Your task to perform on an android device: toggle priority inbox in the gmail app Image 0: 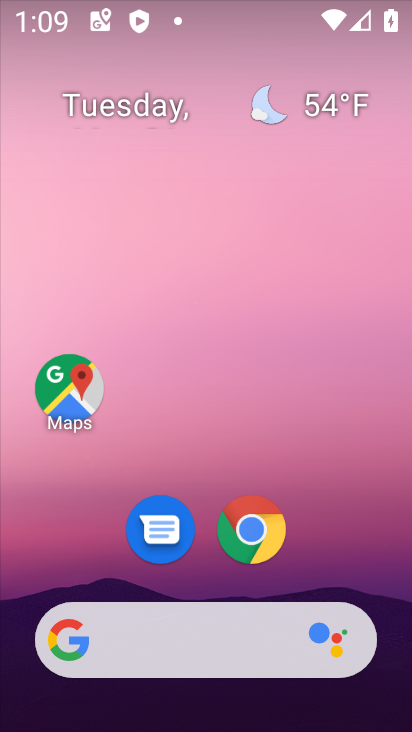
Step 0: drag from (335, 548) to (287, 102)
Your task to perform on an android device: toggle priority inbox in the gmail app Image 1: 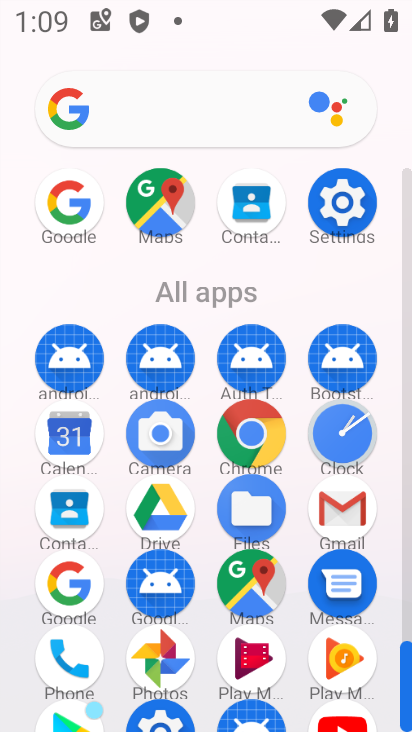
Step 1: click (341, 509)
Your task to perform on an android device: toggle priority inbox in the gmail app Image 2: 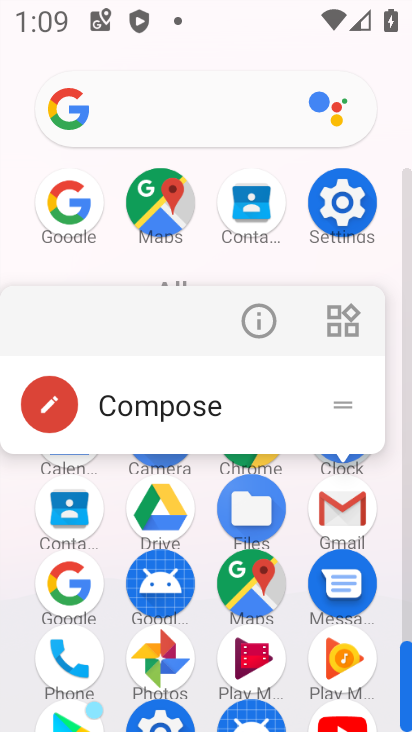
Step 2: click (341, 509)
Your task to perform on an android device: toggle priority inbox in the gmail app Image 3: 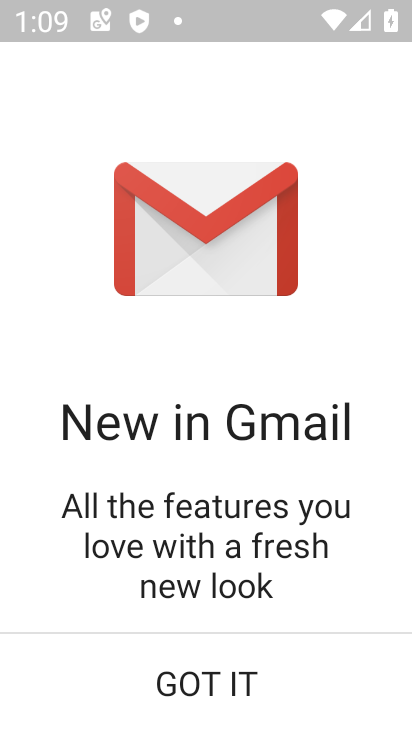
Step 3: click (219, 689)
Your task to perform on an android device: toggle priority inbox in the gmail app Image 4: 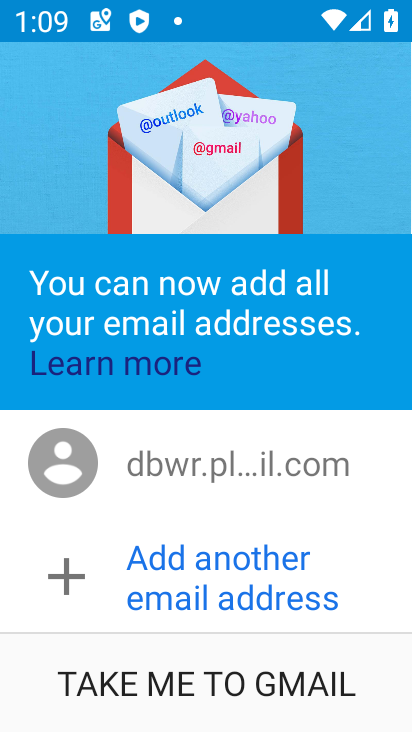
Step 4: click (219, 689)
Your task to perform on an android device: toggle priority inbox in the gmail app Image 5: 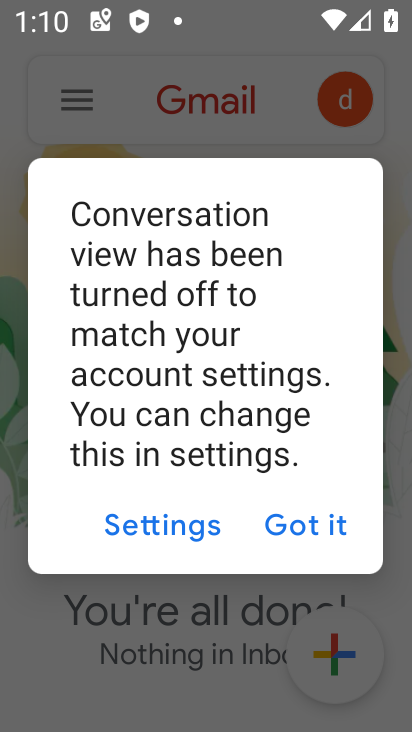
Step 5: click (305, 517)
Your task to perform on an android device: toggle priority inbox in the gmail app Image 6: 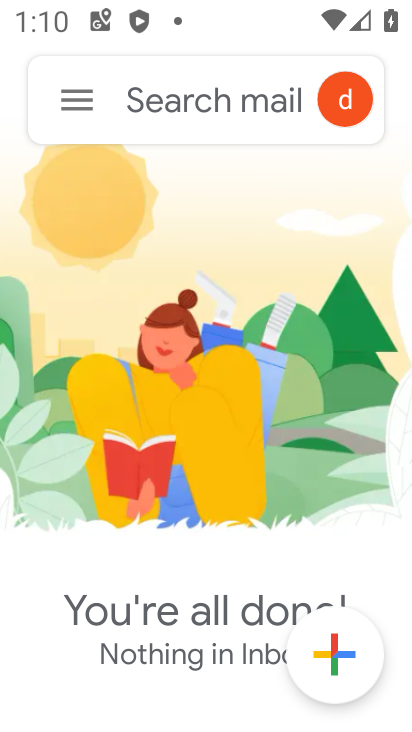
Step 6: click (76, 104)
Your task to perform on an android device: toggle priority inbox in the gmail app Image 7: 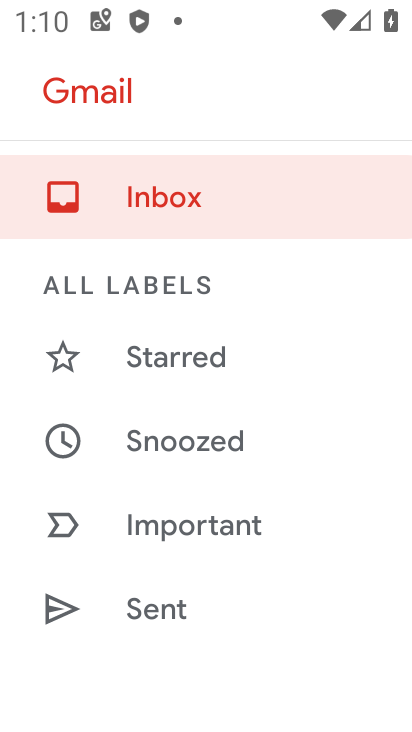
Step 7: drag from (170, 409) to (185, 306)
Your task to perform on an android device: toggle priority inbox in the gmail app Image 8: 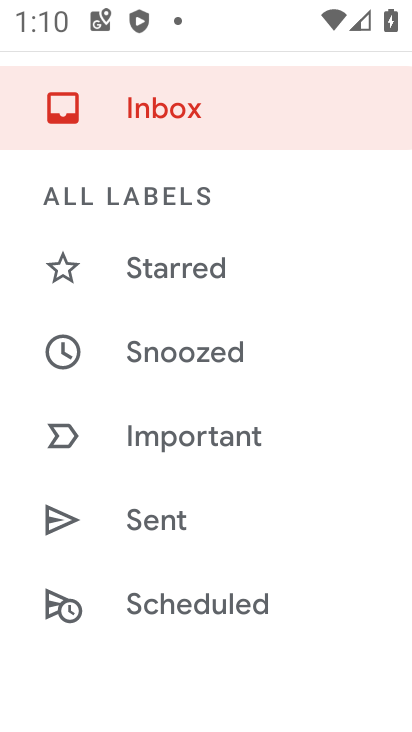
Step 8: drag from (175, 403) to (218, 323)
Your task to perform on an android device: toggle priority inbox in the gmail app Image 9: 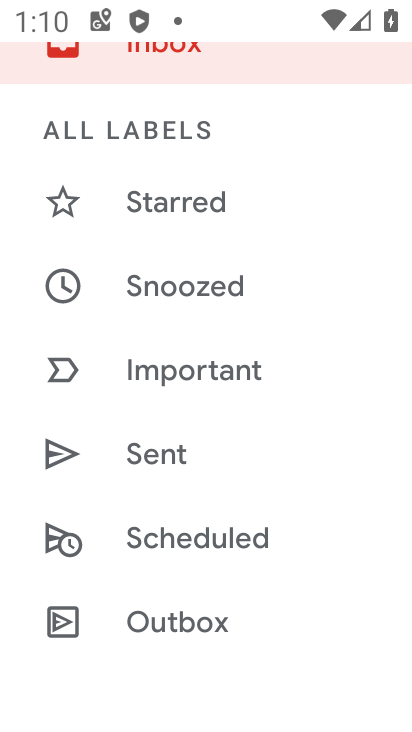
Step 9: drag from (163, 407) to (231, 326)
Your task to perform on an android device: toggle priority inbox in the gmail app Image 10: 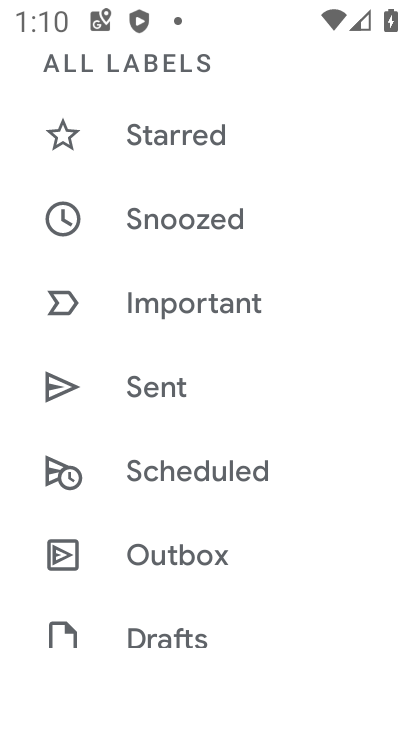
Step 10: drag from (162, 431) to (217, 349)
Your task to perform on an android device: toggle priority inbox in the gmail app Image 11: 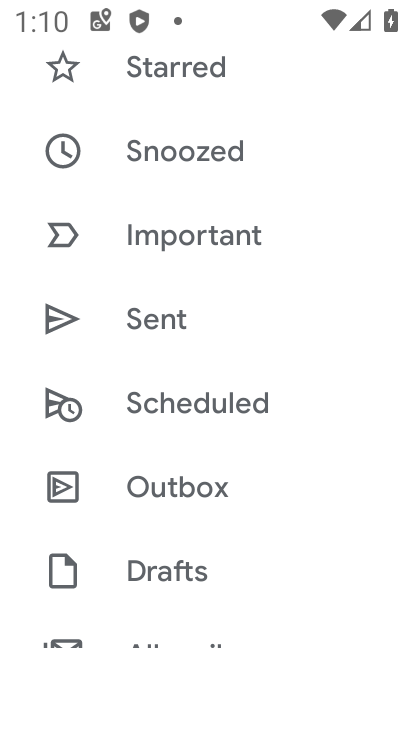
Step 11: drag from (178, 447) to (225, 356)
Your task to perform on an android device: toggle priority inbox in the gmail app Image 12: 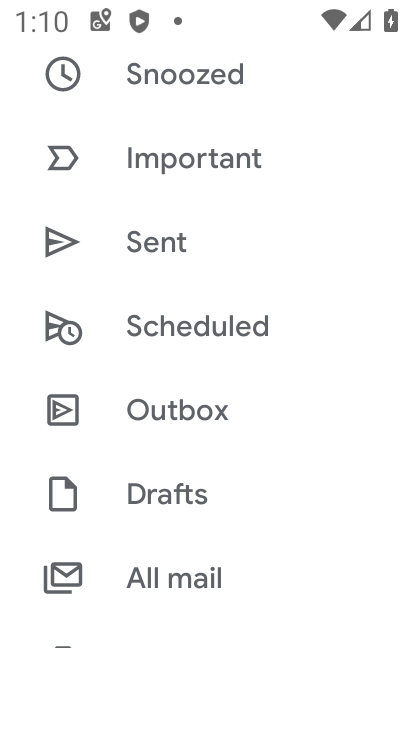
Step 12: drag from (159, 455) to (234, 344)
Your task to perform on an android device: toggle priority inbox in the gmail app Image 13: 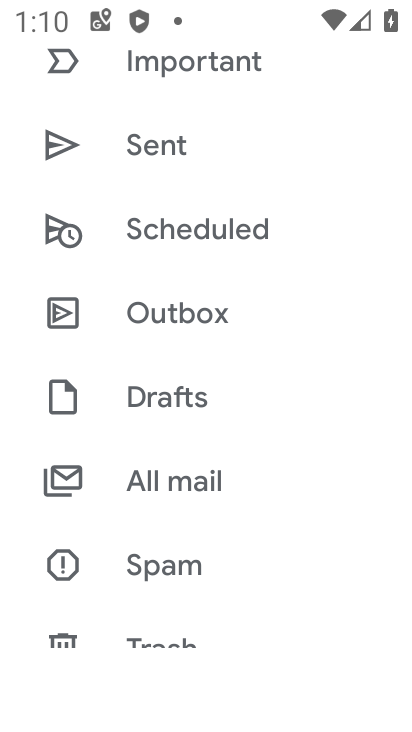
Step 13: drag from (167, 440) to (213, 373)
Your task to perform on an android device: toggle priority inbox in the gmail app Image 14: 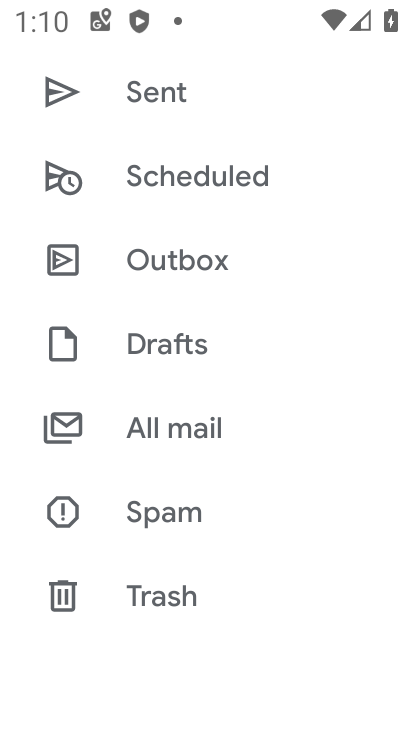
Step 14: drag from (156, 472) to (228, 375)
Your task to perform on an android device: toggle priority inbox in the gmail app Image 15: 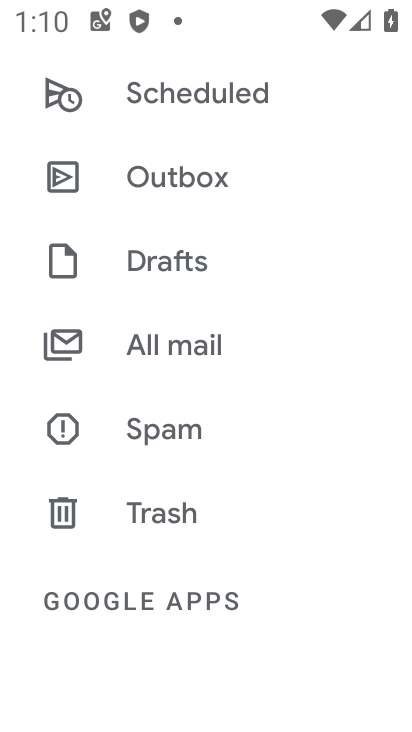
Step 15: drag from (157, 473) to (224, 377)
Your task to perform on an android device: toggle priority inbox in the gmail app Image 16: 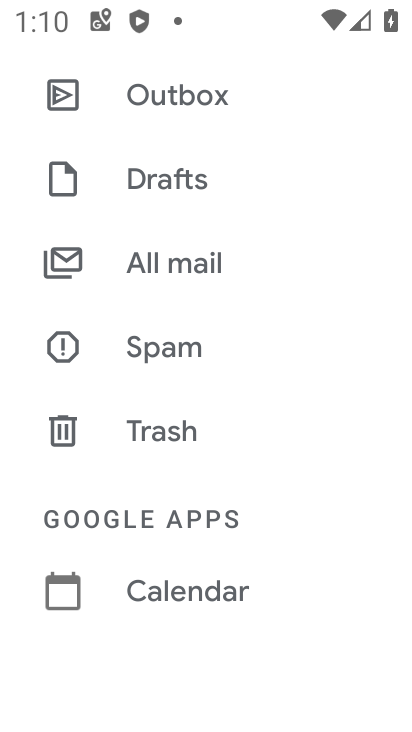
Step 16: drag from (151, 480) to (208, 388)
Your task to perform on an android device: toggle priority inbox in the gmail app Image 17: 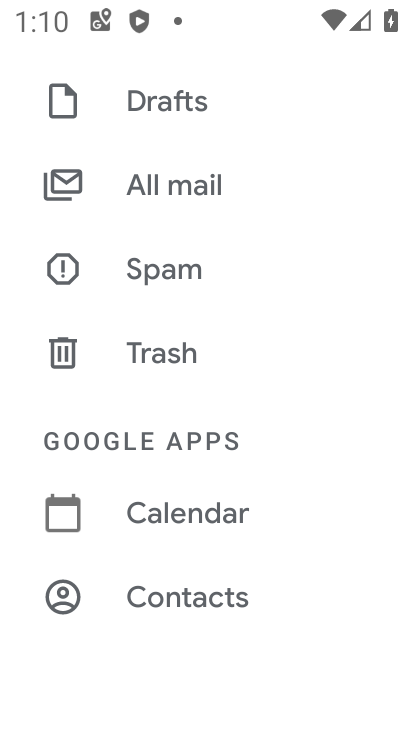
Step 17: drag from (196, 551) to (264, 448)
Your task to perform on an android device: toggle priority inbox in the gmail app Image 18: 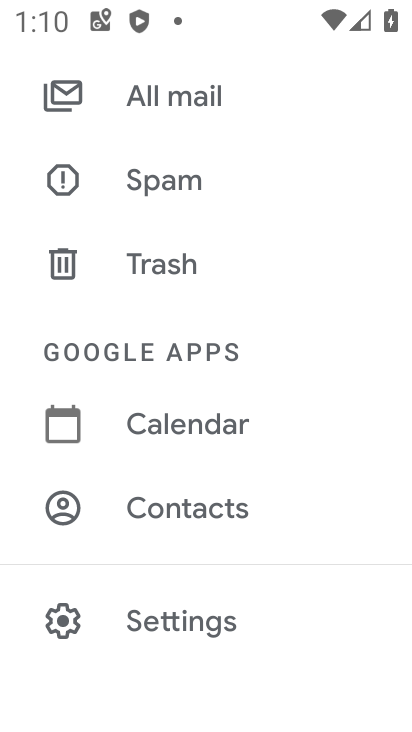
Step 18: drag from (185, 593) to (266, 496)
Your task to perform on an android device: toggle priority inbox in the gmail app Image 19: 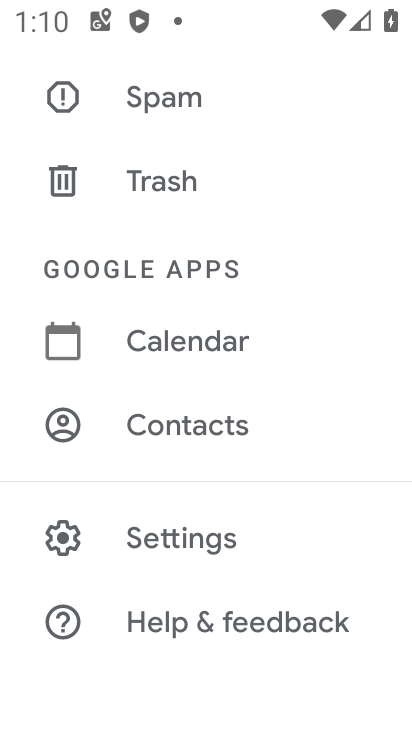
Step 19: click (226, 536)
Your task to perform on an android device: toggle priority inbox in the gmail app Image 20: 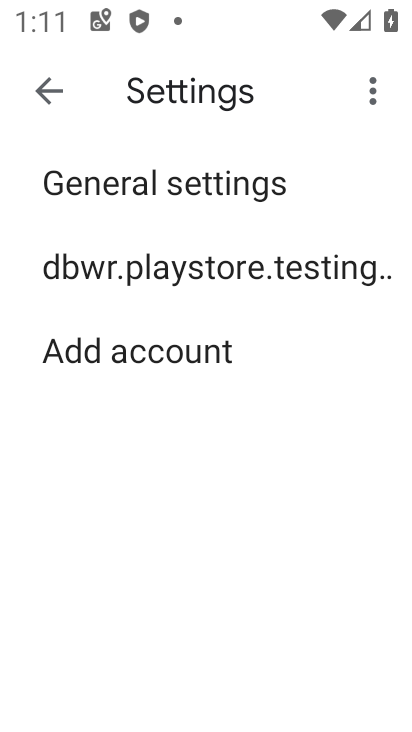
Step 20: click (306, 273)
Your task to perform on an android device: toggle priority inbox in the gmail app Image 21: 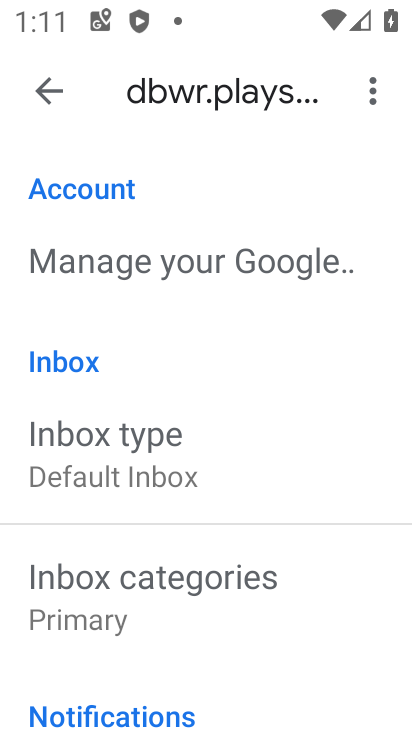
Step 21: click (162, 470)
Your task to perform on an android device: toggle priority inbox in the gmail app Image 22: 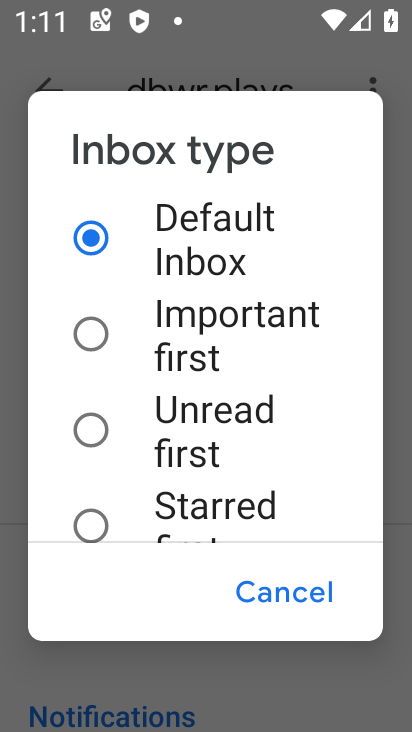
Step 22: drag from (137, 467) to (186, 290)
Your task to perform on an android device: toggle priority inbox in the gmail app Image 23: 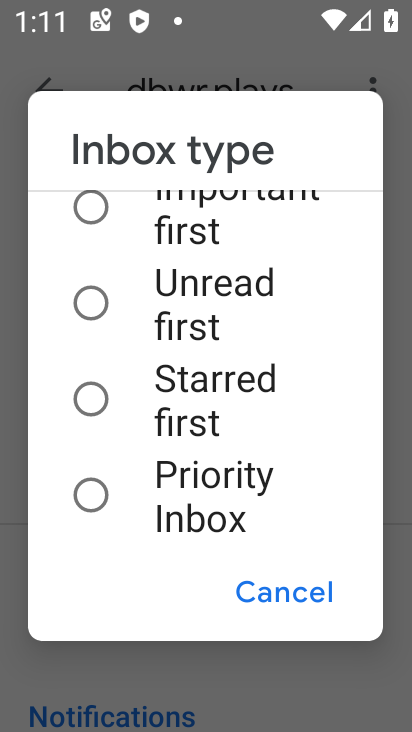
Step 23: click (99, 492)
Your task to perform on an android device: toggle priority inbox in the gmail app Image 24: 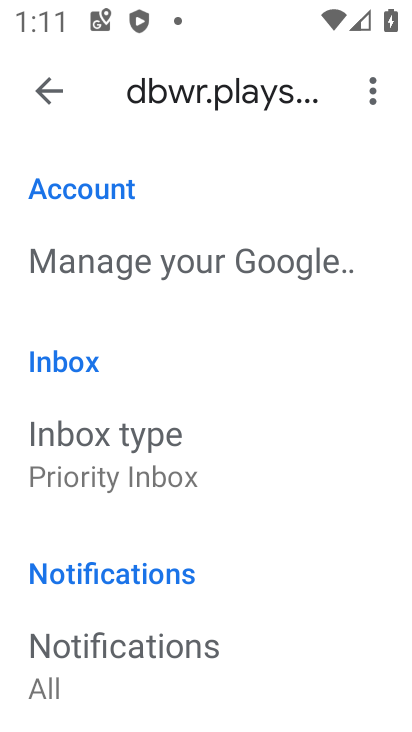
Step 24: task complete